Your task to perform on an android device: clear history in the chrome app Image 0: 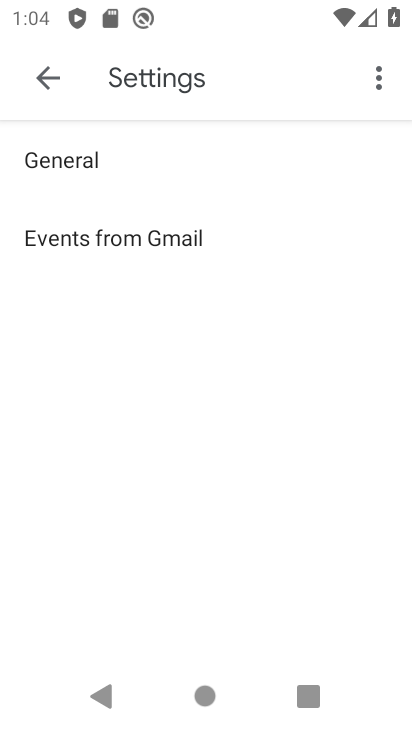
Step 0: press back button
Your task to perform on an android device: clear history in the chrome app Image 1: 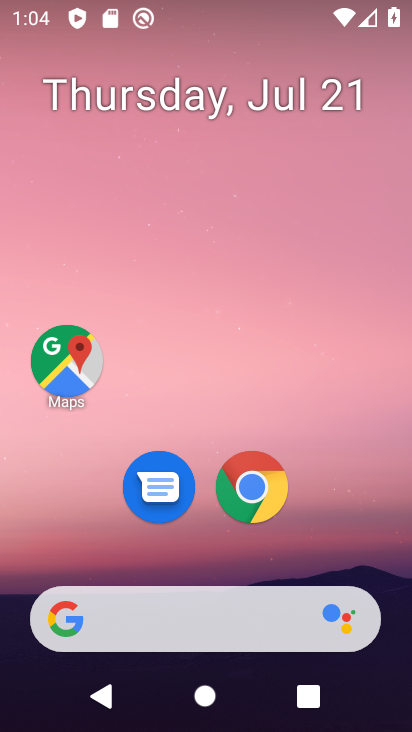
Step 1: click (239, 490)
Your task to perform on an android device: clear history in the chrome app Image 2: 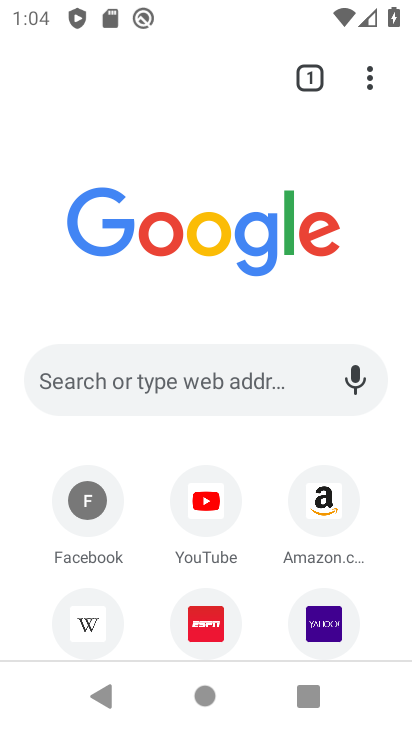
Step 2: task complete